Your task to perform on an android device: turn notification dots on Image 0: 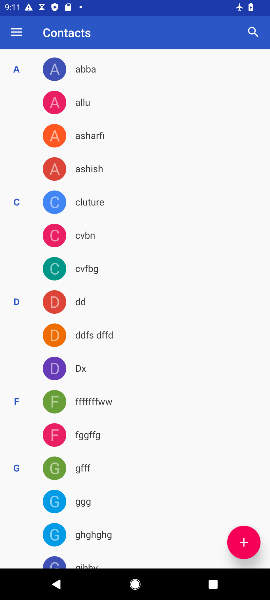
Step 0: press home button
Your task to perform on an android device: turn notification dots on Image 1: 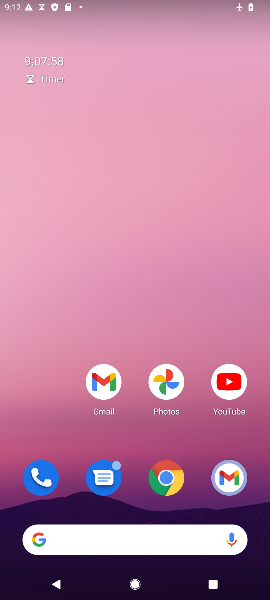
Step 1: drag from (196, 334) to (172, 93)
Your task to perform on an android device: turn notification dots on Image 2: 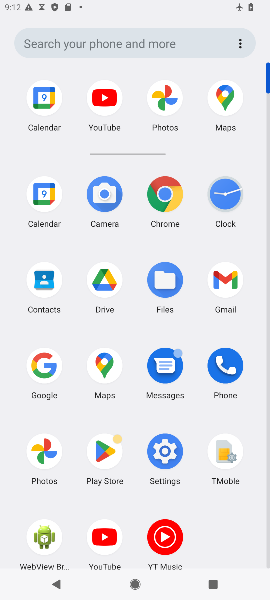
Step 2: click (161, 442)
Your task to perform on an android device: turn notification dots on Image 3: 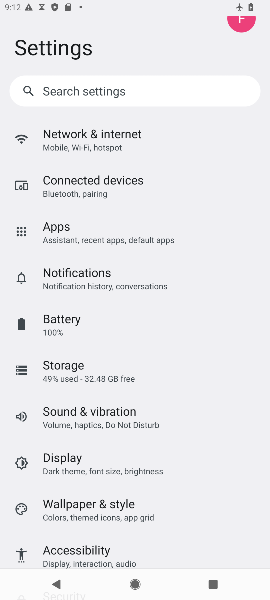
Step 3: click (138, 276)
Your task to perform on an android device: turn notification dots on Image 4: 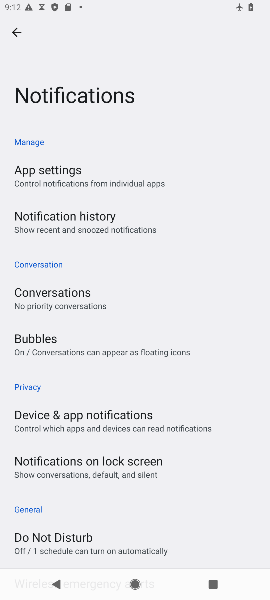
Step 4: task complete